Your task to perform on an android device: Open battery settings Image 0: 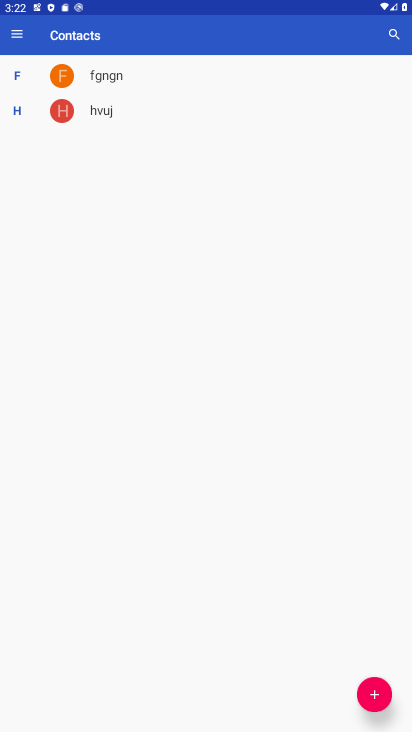
Step 0: press home button
Your task to perform on an android device: Open battery settings Image 1: 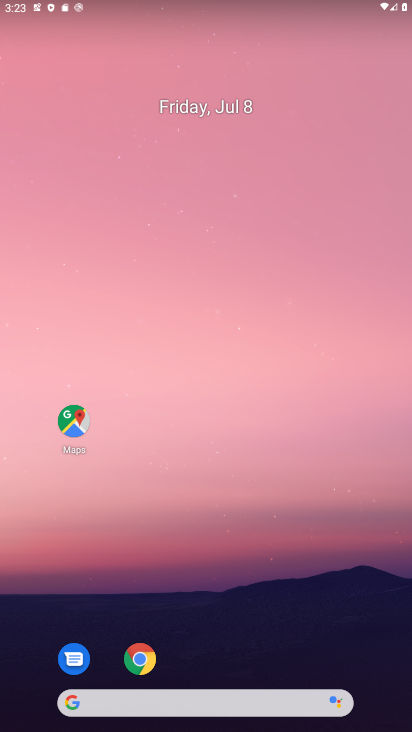
Step 1: drag from (211, 652) to (187, 149)
Your task to perform on an android device: Open battery settings Image 2: 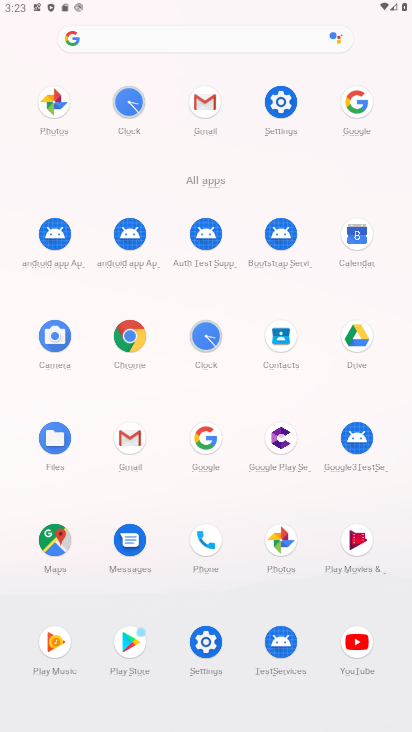
Step 2: click (265, 97)
Your task to perform on an android device: Open battery settings Image 3: 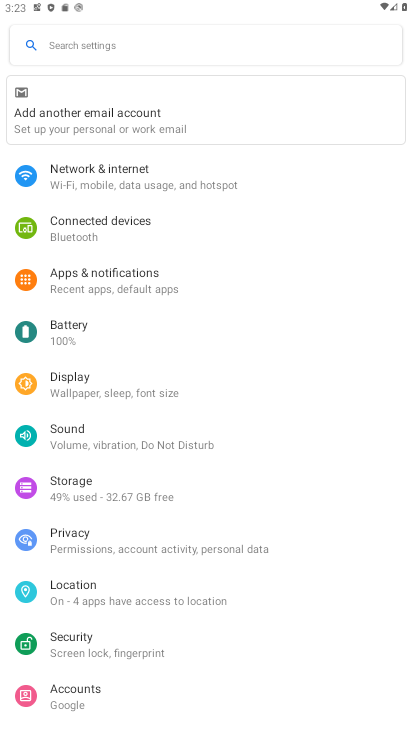
Step 3: click (106, 336)
Your task to perform on an android device: Open battery settings Image 4: 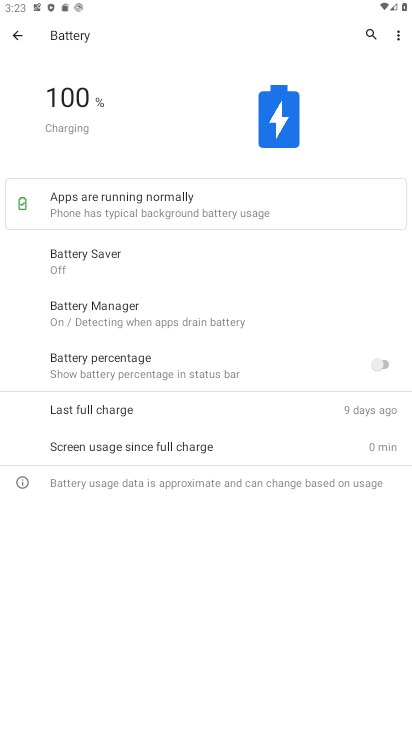
Step 4: task complete